Your task to perform on an android device: What's the weather going to be tomorrow? Image 0: 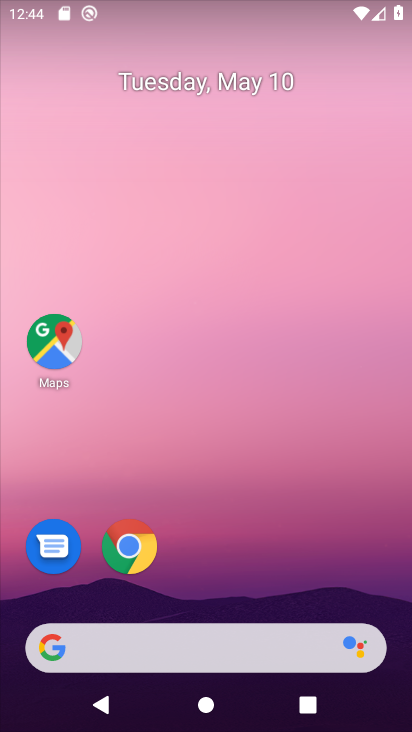
Step 0: drag from (152, 721) to (108, 711)
Your task to perform on an android device: What's the weather going to be tomorrow? Image 1: 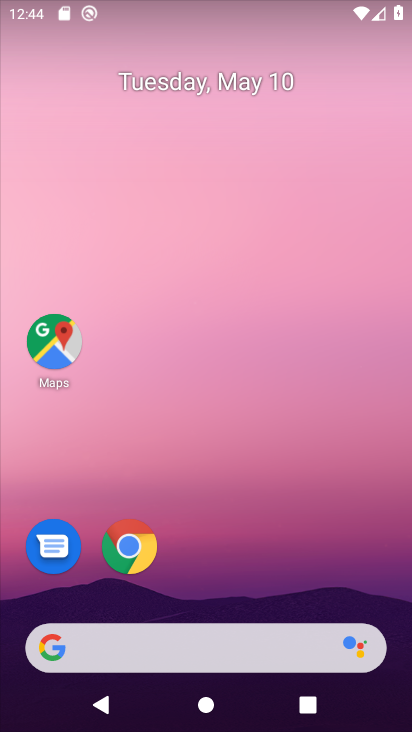
Step 1: click (137, 563)
Your task to perform on an android device: What's the weather going to be tomorrow? Image 2: 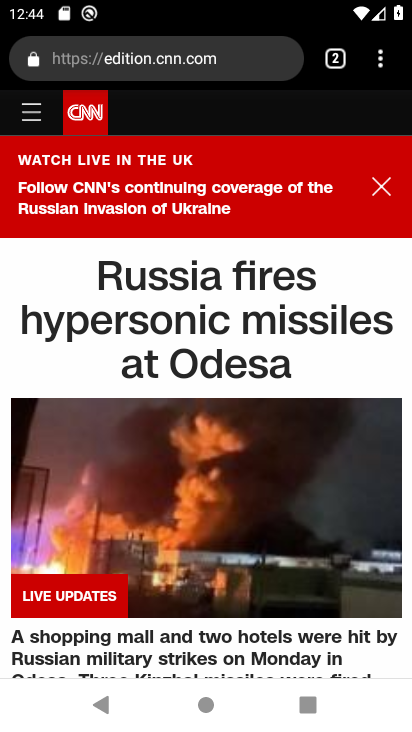
Step 2: click (175, 64)
Your task to perform on an android device: What's the weather going to be tomorrow? Image 3: 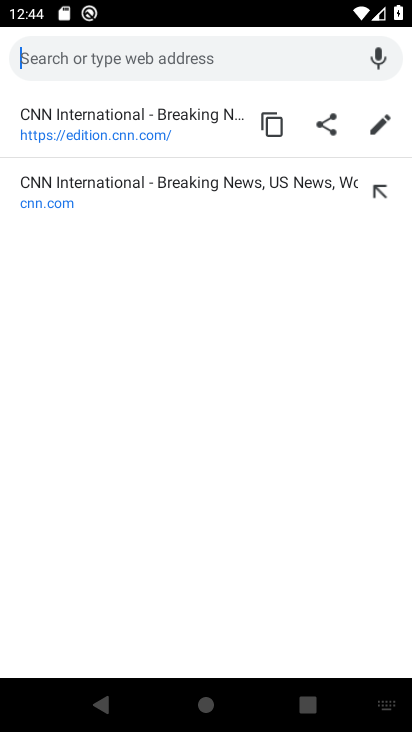
Step 3: type " What's the weather going to be tomorrow?"
Your task to perform on an android device: What's the weather going to be tomorrow? Image 4: 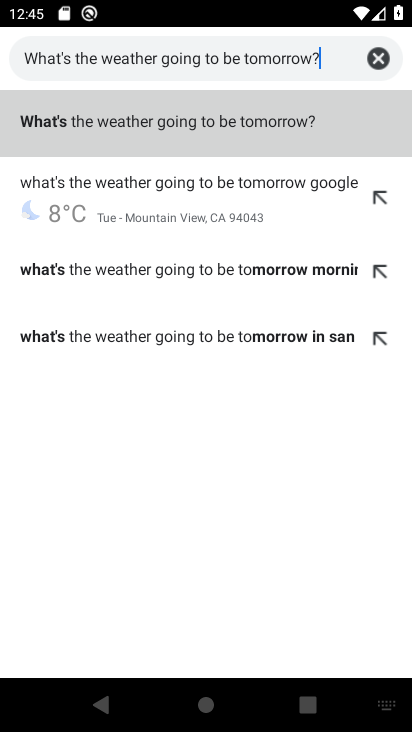
Step 4: click (109, 134)
Your task to perform on an android device: What's the weather going to be tomorrow? Image 5: 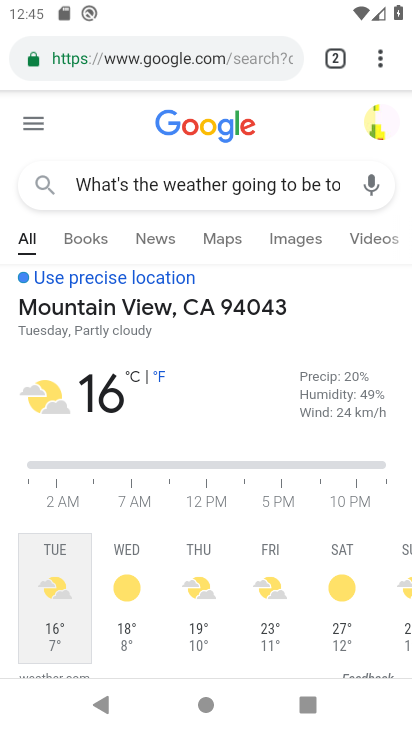
Step 5: task complete